Your task to perform on an android device: toggle show notifications on the lock screen Image 0: 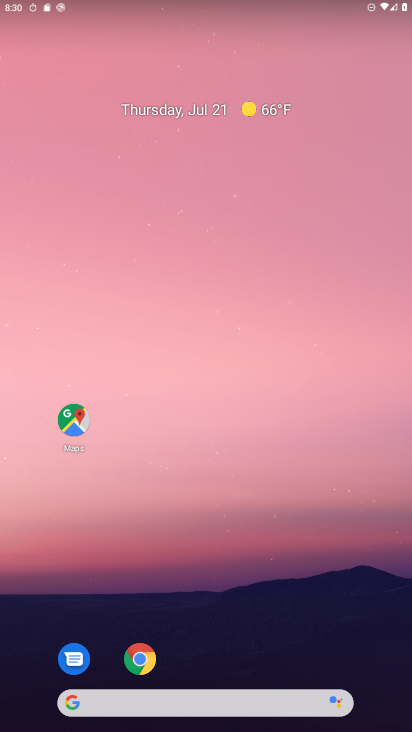
Step 0: drag from (206, 544) to (381, 61)
Your task to perform on an android device: toggle show notifications on the lock screen Image 1: 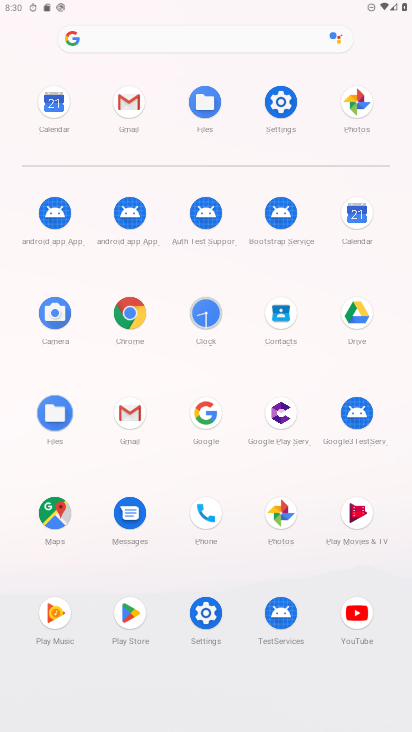
Step 1: click (281, 104)
Your task to perform on an android device: toggle show notifications on the lock screen Image 2: 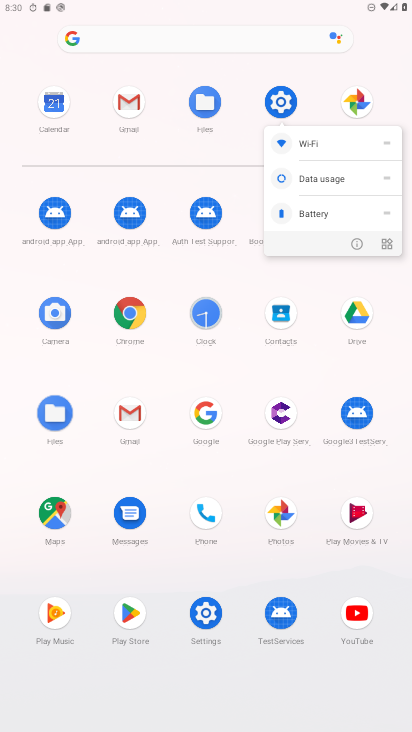
Step 2: click (359, 237)
Your task to perform on an android device: toggle show notifications on the lock screen Image 3: 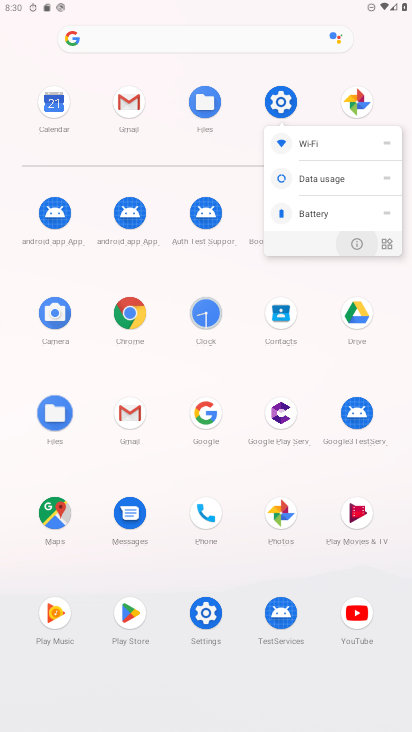
Step 3: click (359, 237)
Your task to perform on an android device: toggle show notifications on the lock screen Image 4: 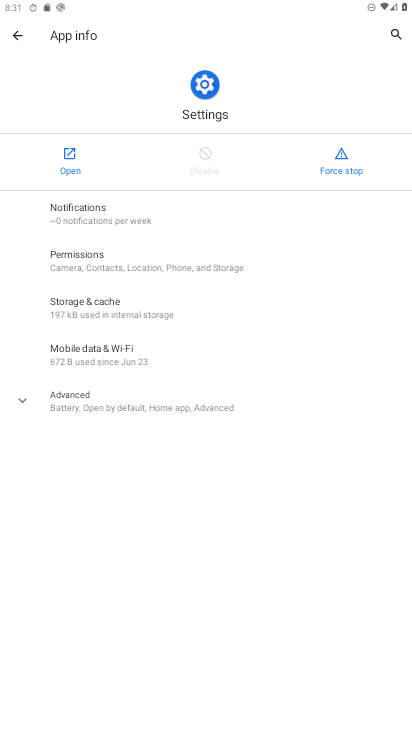
Step 4: click (54, 156)
Your task to perform on an android device: toggle show notifications on the lock screen Image 5: 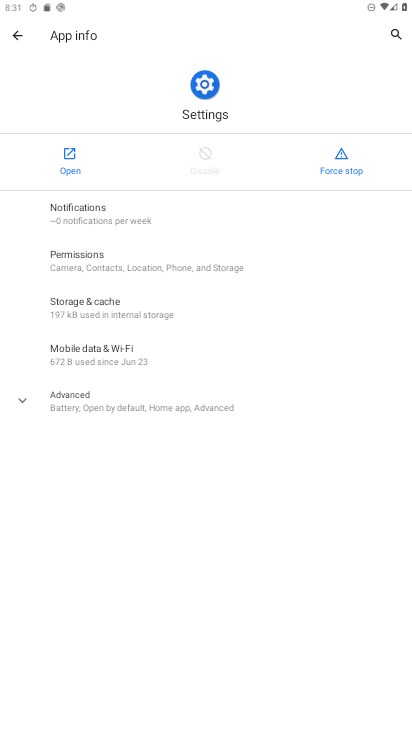
Step 5: click (54, 156)
Your task to perform on an android device: toggle show notifications on the lock screen Image 6: 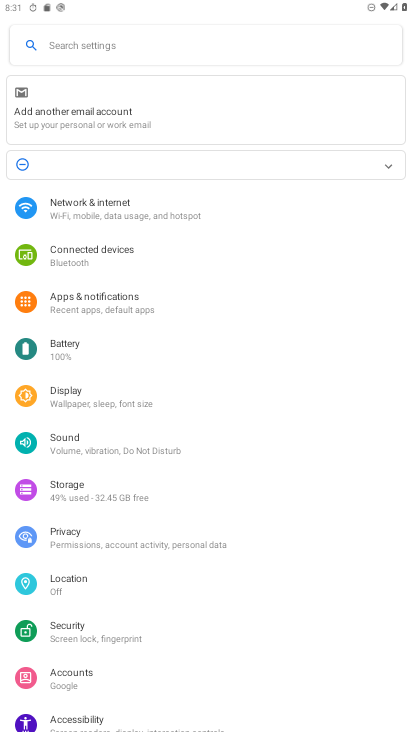
Step 6: click (147, 189)
Your task to perform on an android device: toggle show notifications on the lock screen Image 7: 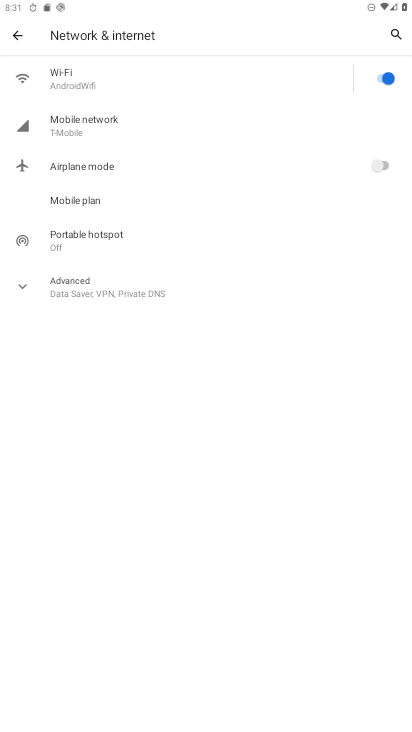
Step 7: click (18, 39)
Your task to perform on an android device: toggle show notifications on the lock screen Image 8: 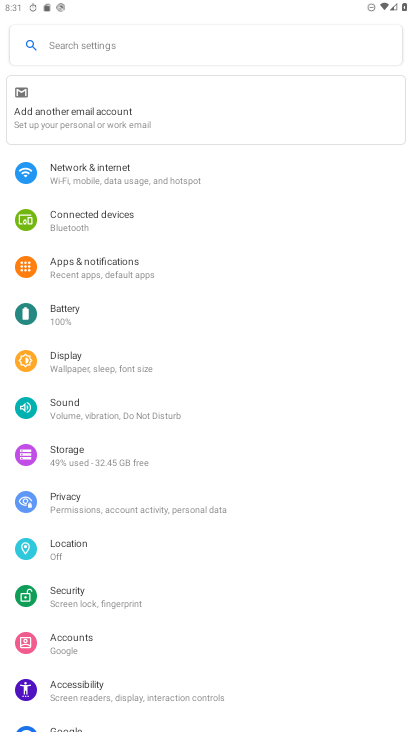
Step 8: click (154, 253)
Your task to perform on an android device: toggle show notifications on the lock screen Image 9: 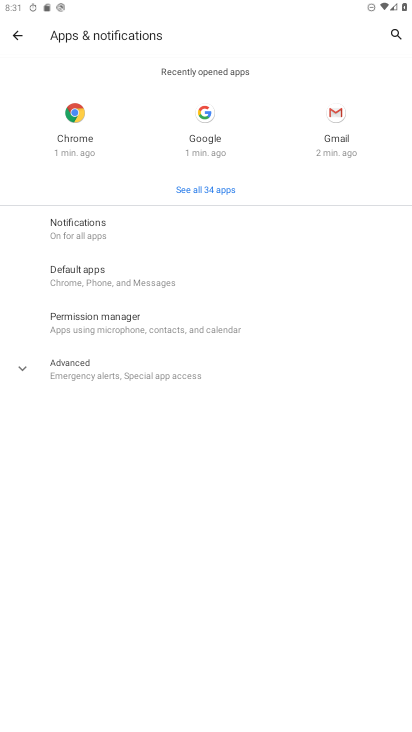
Step 9: click (95, 223)
Your task to perform on an android device: toggle show notifications on the lock screen Image 10: 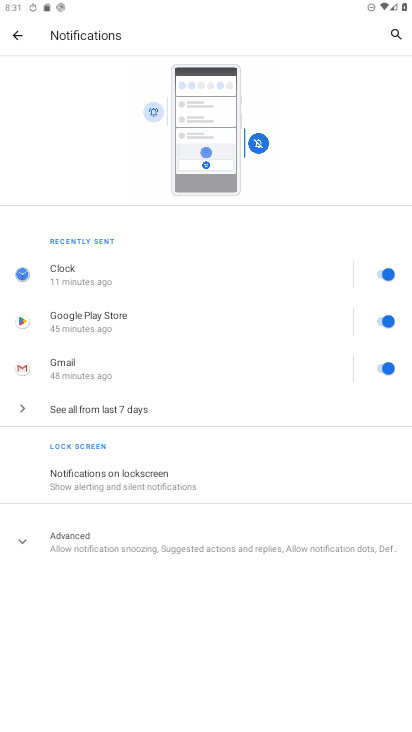
Step 10: click (117, 463)
Your task to perform on an android device: toggle show notifications on the lock screen Image 11: 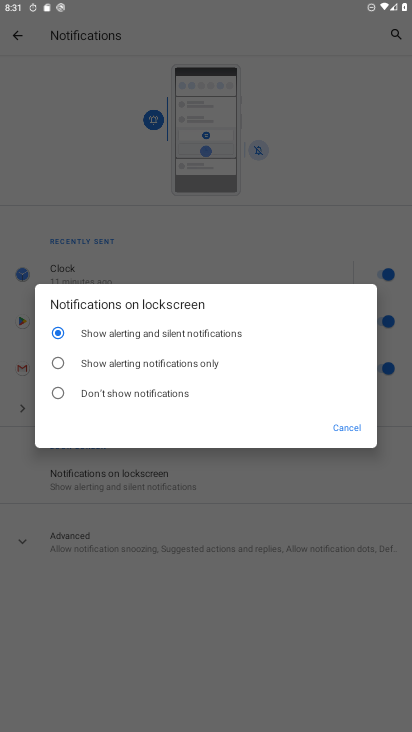
Step 11: click (93, 358)
Your task to perform on an android device: toggle show notifications on the lock screen Image 12: 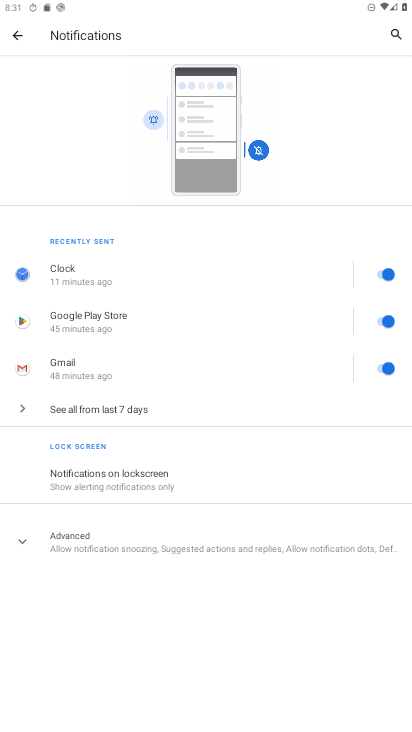
Step 12: task complete